Your task to perform on an android device: Go to Amazon Image 0: 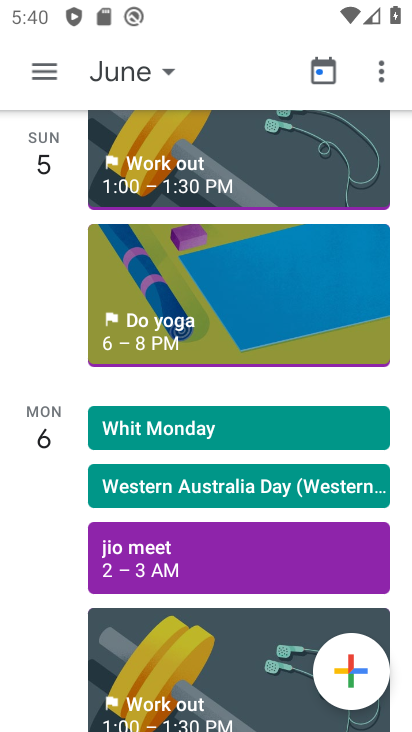
Step 0: press home button
Your task to perform on an android device: Go to Amazon Image 1: 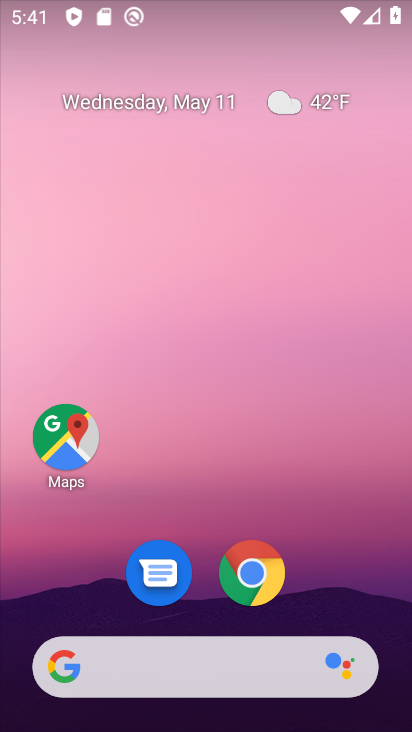
Step 1: click (241, 579)
Your task to perform on an android device: Go to Amazon Image 2: 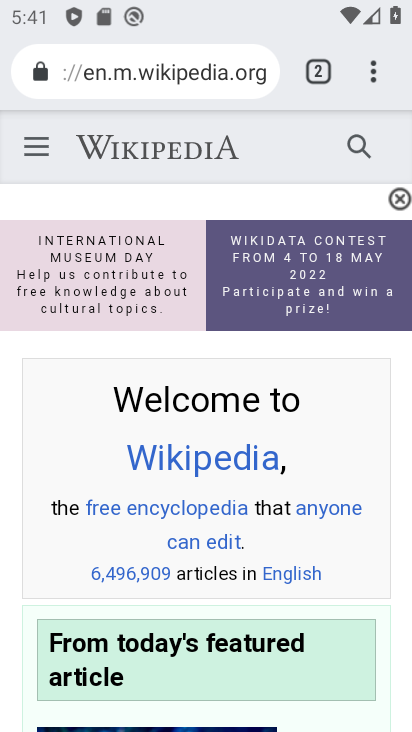
Step 2: press back button
Your task to perform on an android device: Go to Amazon Image 3: 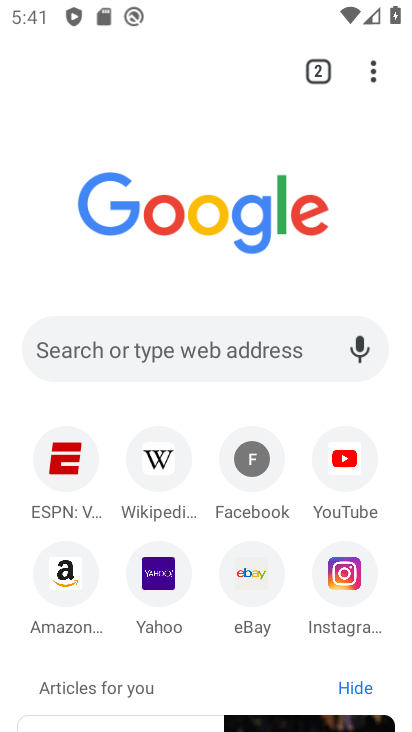
Step 3: click (62, 560)
Your task to perform on an android device: Go to Amazon Image 4: 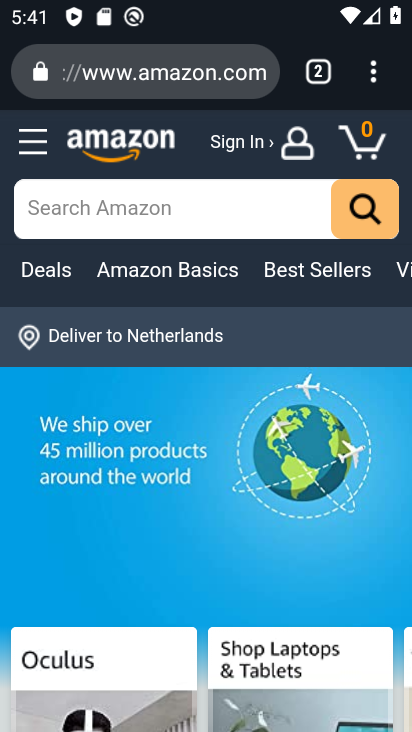
Step 4: task complete